Your task to perform on an android device: install app "Google Translate" Image 0: 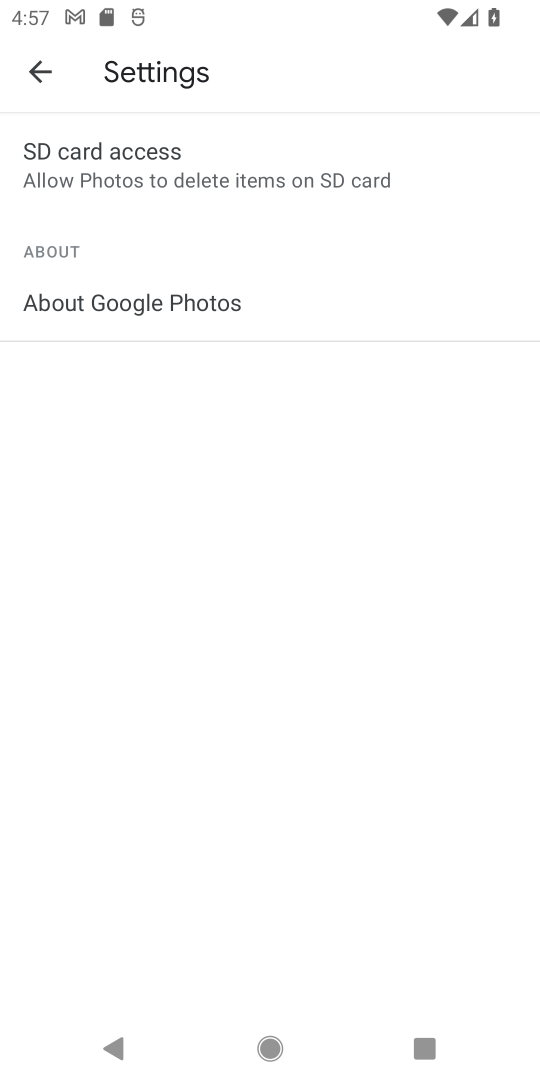
Step 0: click (23, 77)
Your task to perform on an android device: install app "Google Translate" Image 1: 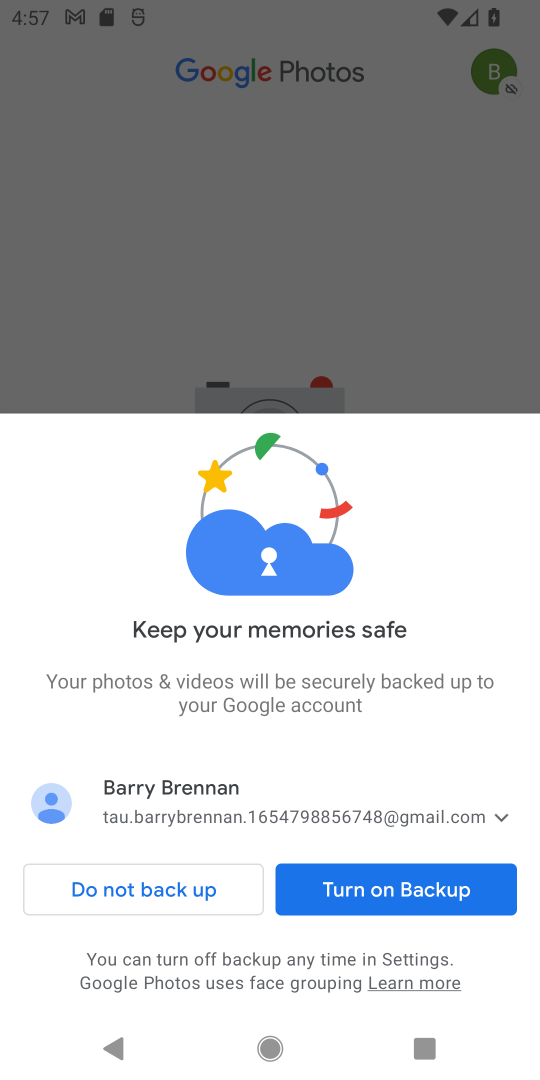
Step 1: click (432, 306)
Your task to perform on an android device: install app "Google Translate" Image 2: 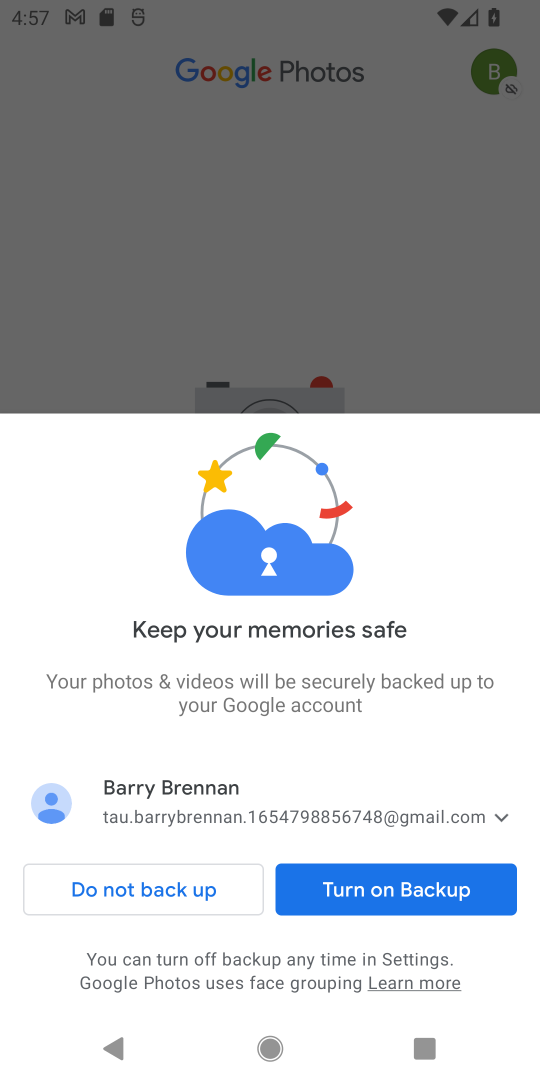
Step 2: click (448, 371)
Your task to perform on an android device: install app "Google Translate" Image 3: 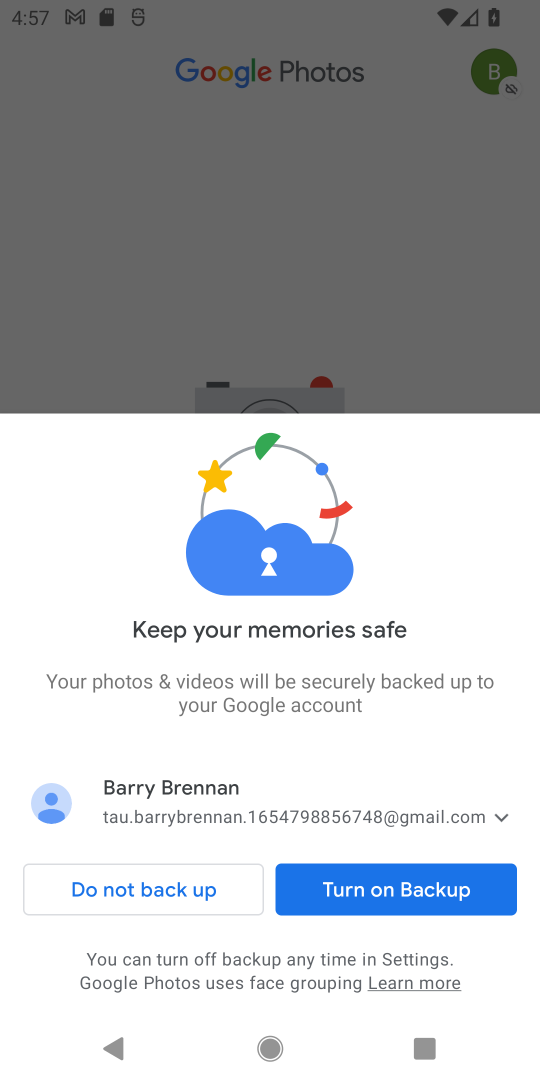
Step 3: click (271, 253)
Your task to perform on an android device: install app "Google Translate" Image 4: 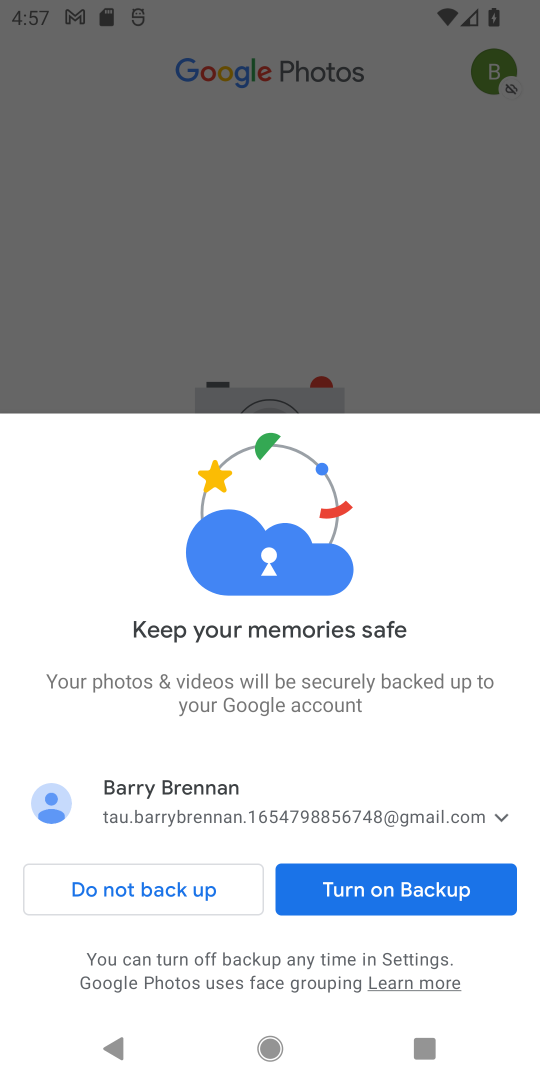
Step 4: click (271, 253)
Your task to perform on an android device: install app "Google Translate" Image 5: 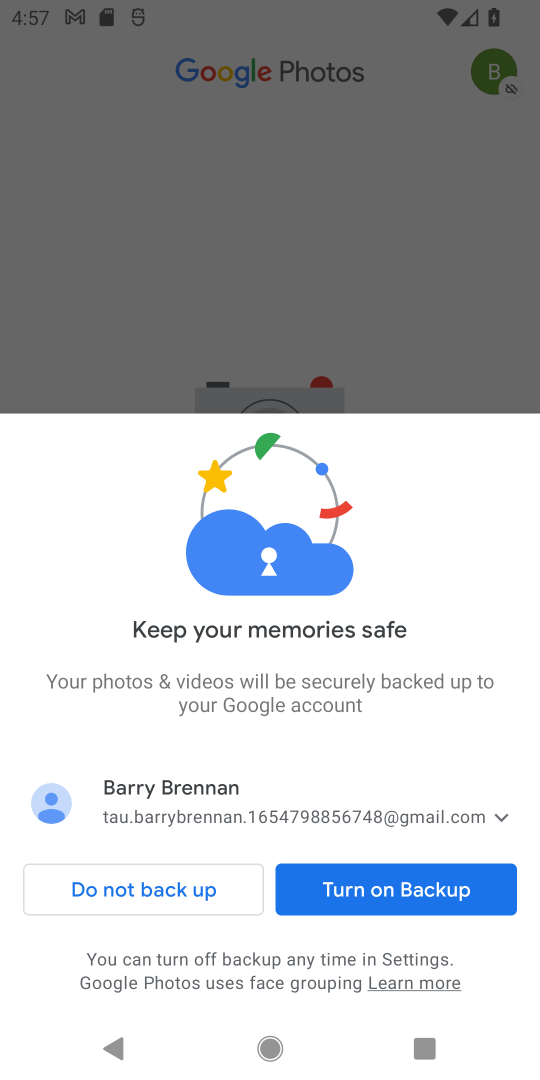
Step 5: click (255, 276)
Your task to perform on an android device: install app "Google Translate" Image 6: 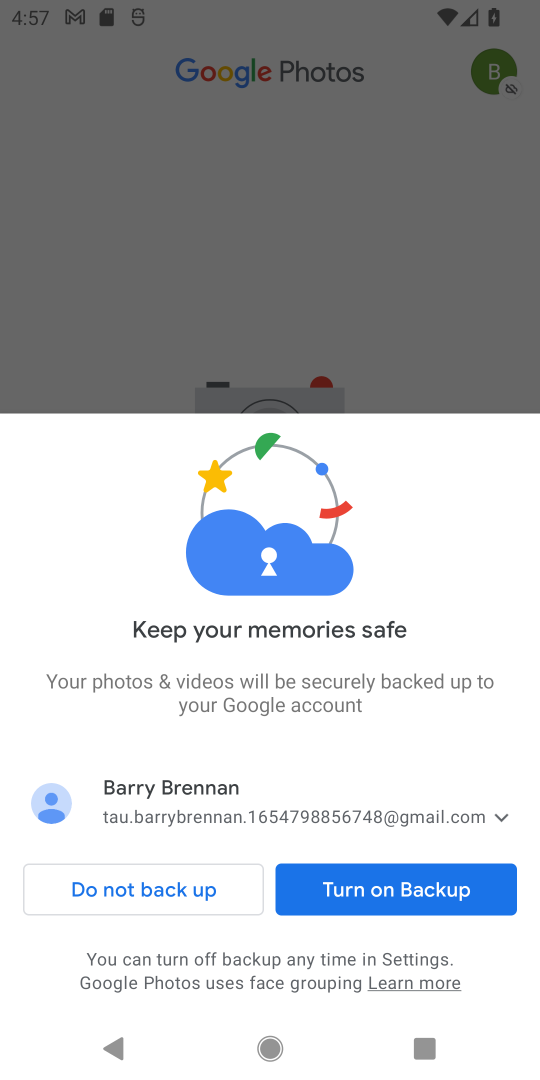
Step 6: click (332, 267)
Your task to perform on an android device: install app "Google Translate" Image 7: 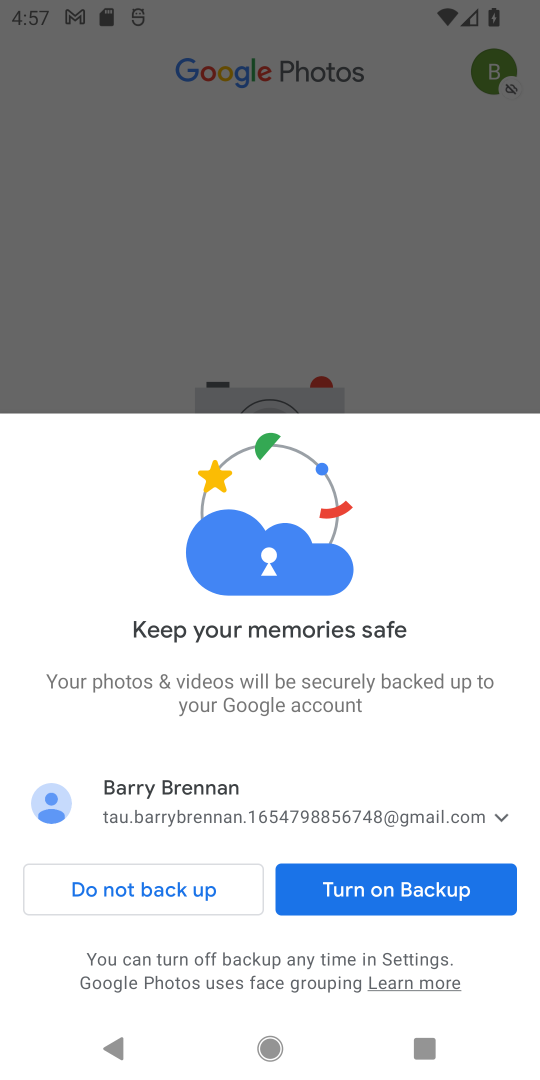
Step 7: click (332, 267)
Your task to perform on an android device: install app "Google Translate" Image 8: 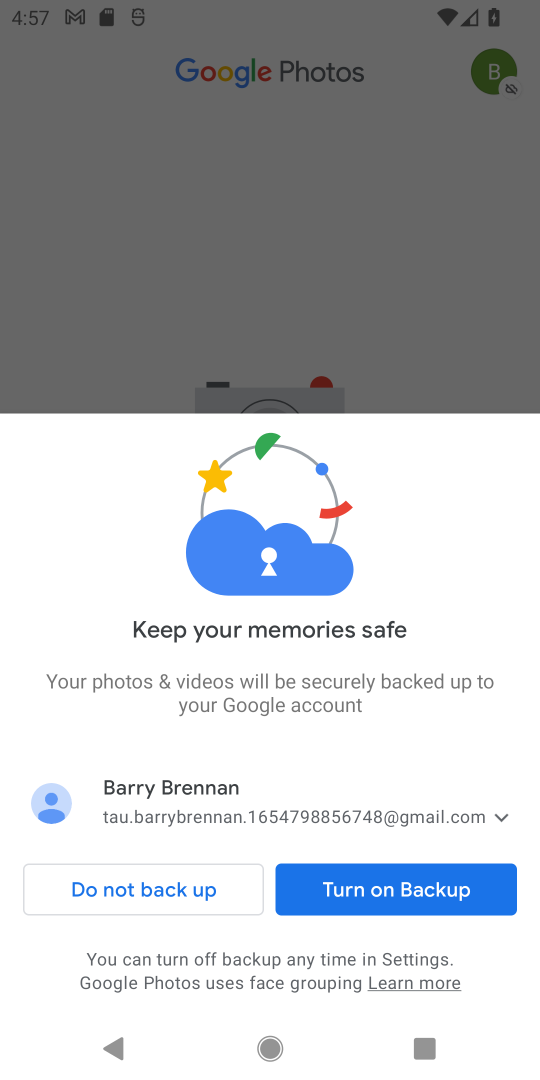
Step 8: click (356, 301)
Your task to perform on an android device: install app "Google Translate" Image 9: 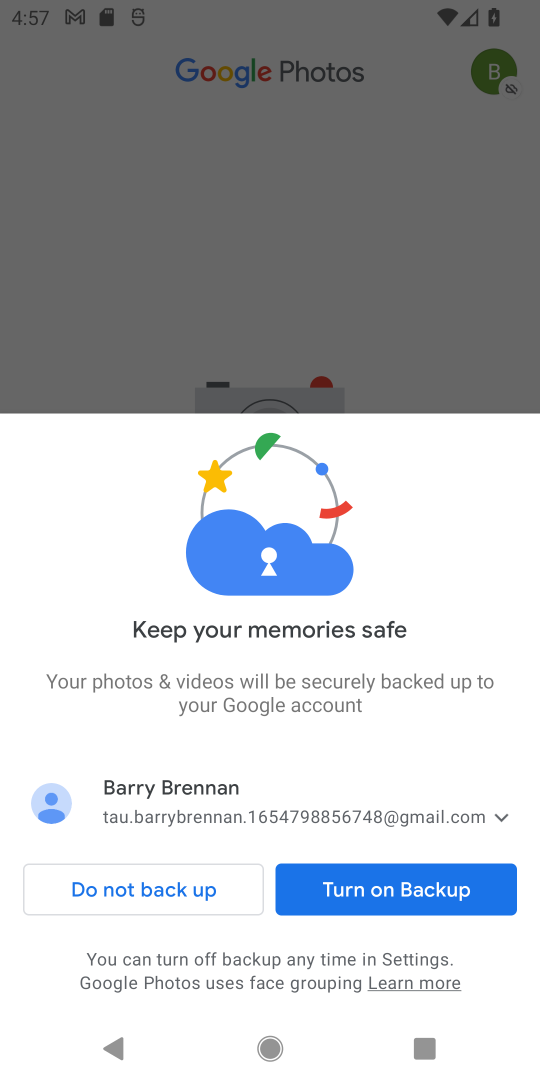
Step 9: press back button
Your task to perform on an android device: install app "Google Translate" Image 10: 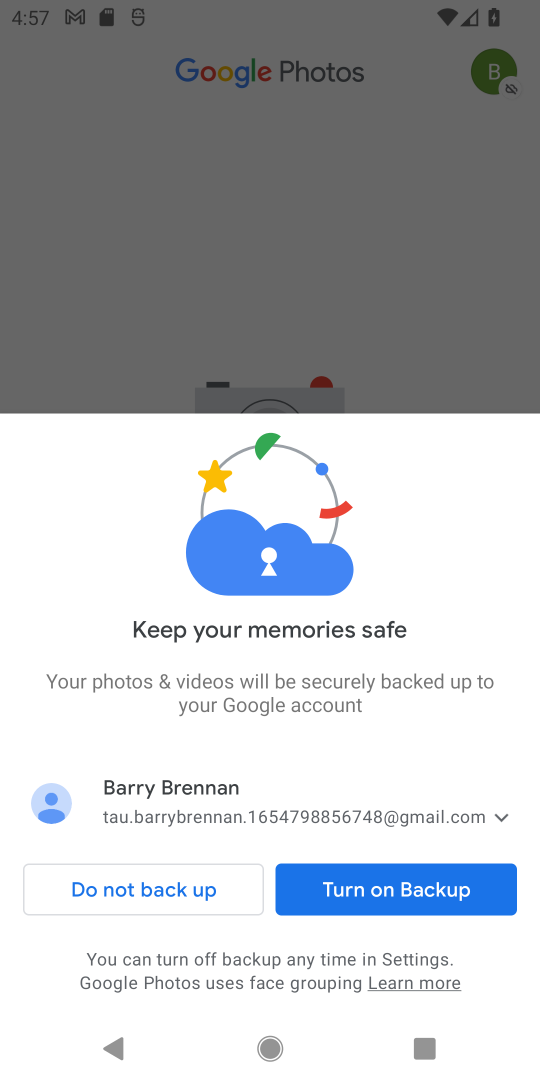
Step 10: press back button
Your task to perform on an android device: install app "Google Translate" Image 11: 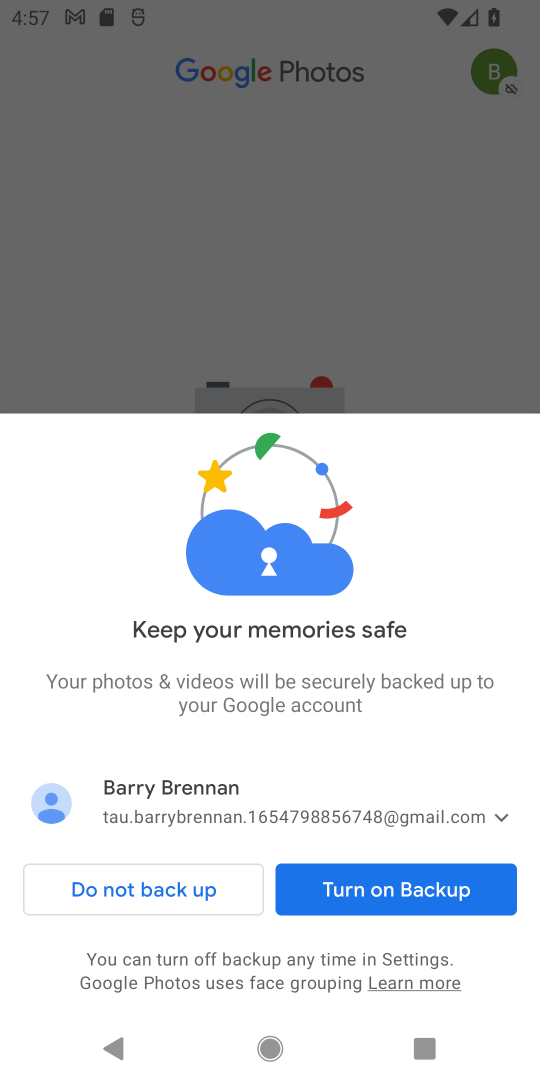
Step 11: click (323, 267)
Your task to perform on an android device: install app "Google Translate" Image 12: 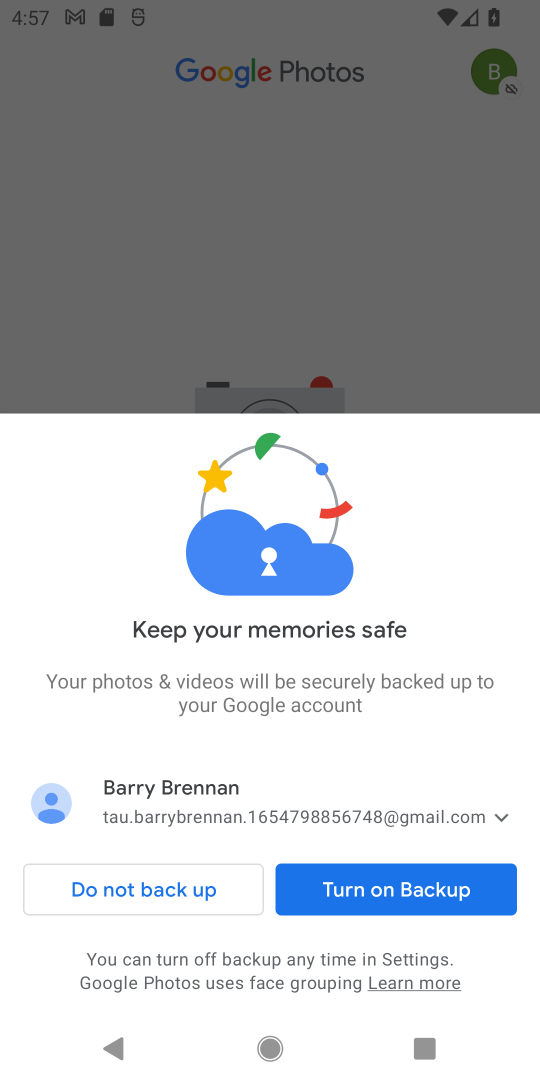
Step 12: click (327, 265)
Your task to perform on an android device: install app "Google Translate" Image 13: 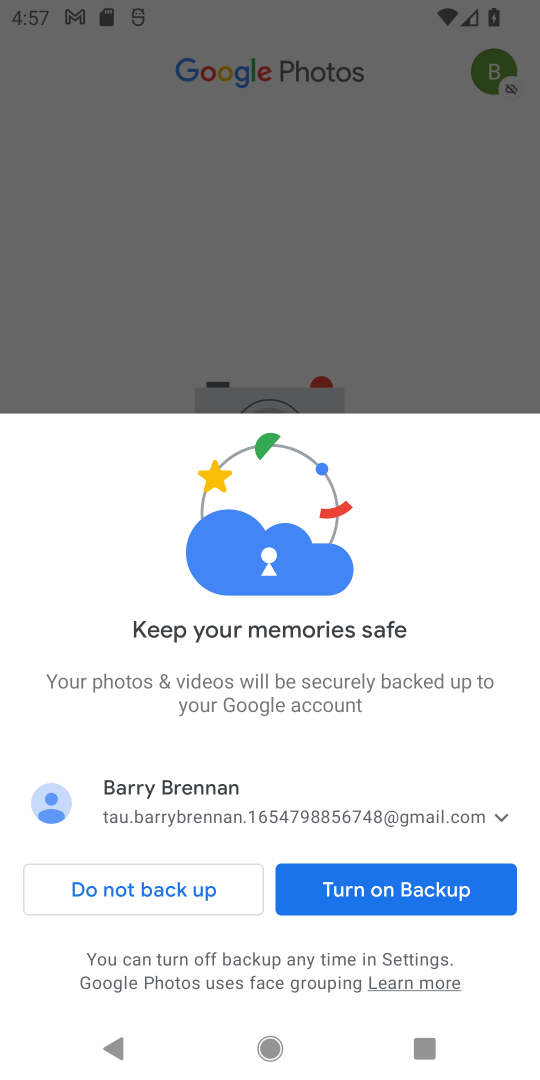
Step 13: click (345, 273)
Your task to perform on an android device: install app "Google Translate" Image 14: 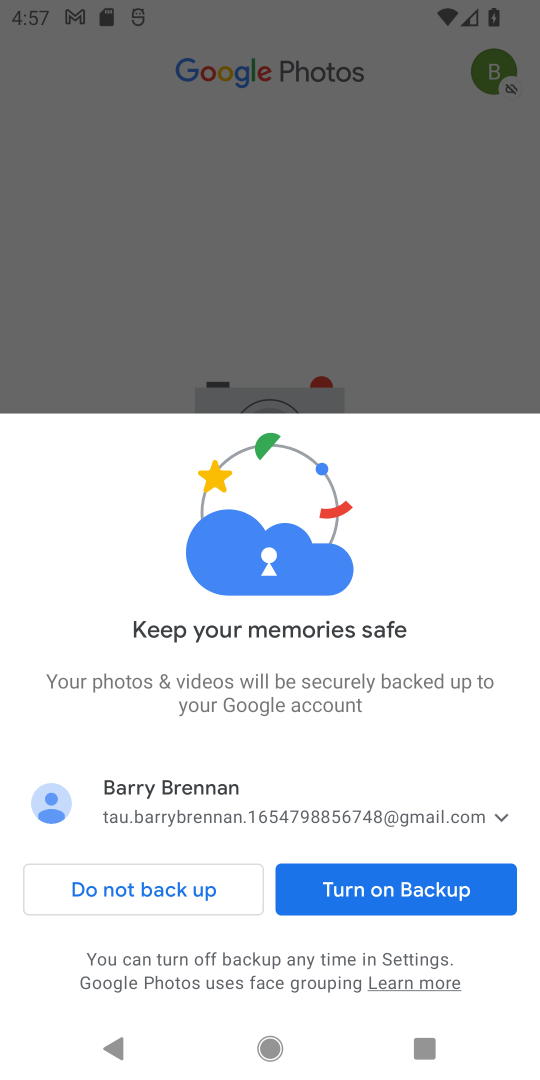
Step 14: click (244, 286)
Your task to perform on an android device: install app "Google Translate" Image 15: 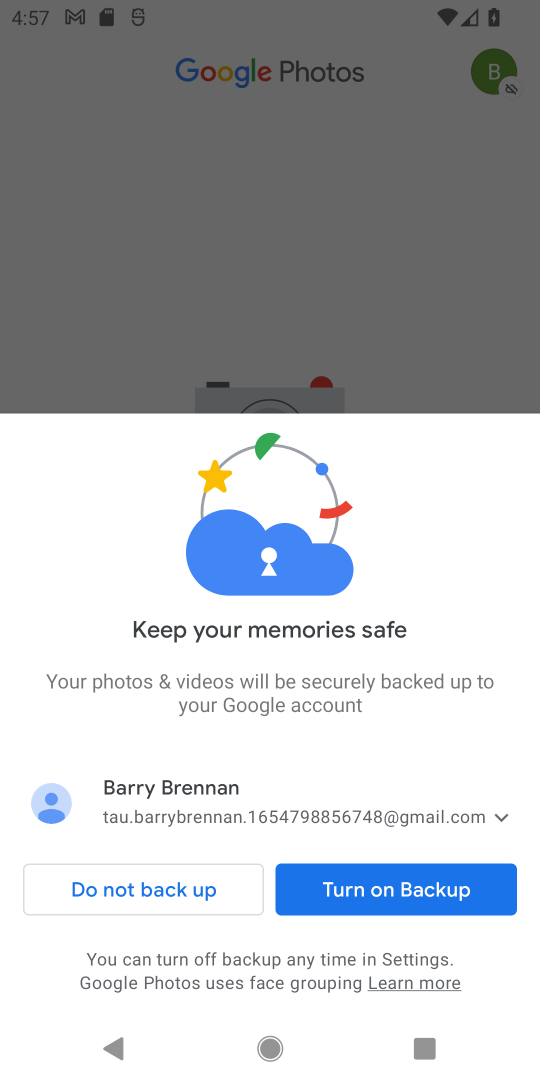
Step 15: click (253, 281)
Your task to perform on an android device: install app "Google Translate" Image 16: 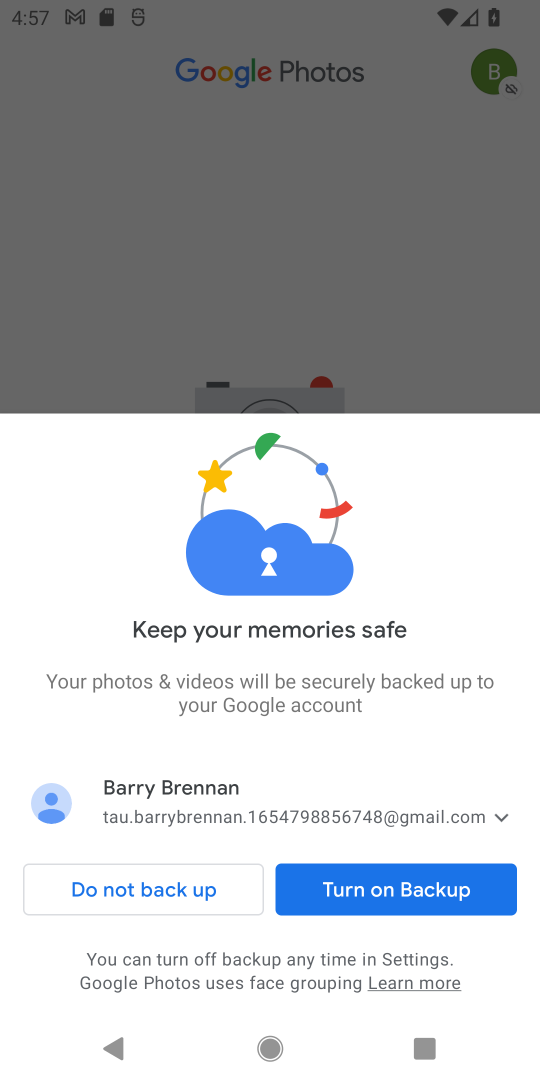
Step 16: click (257, 280)
Your task to perform on an android device: install app "Google Translate" Image 17: 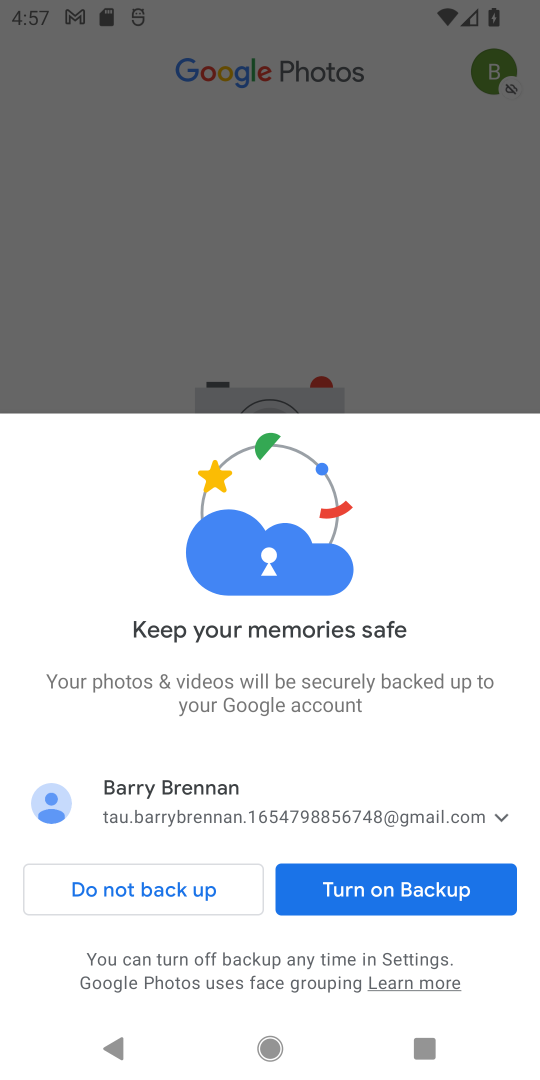
Step 17: press back button
Your task to perform on an android device: install app "Google Translate" Image 18: 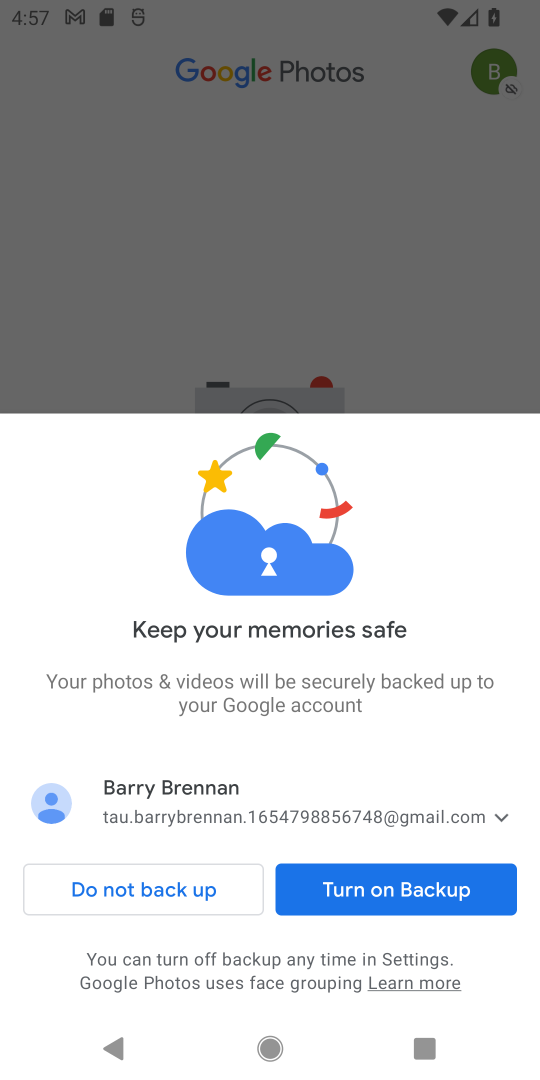
Step 18: press home button
Your task to perform on an android device: install app "Google Translate" Image 19: 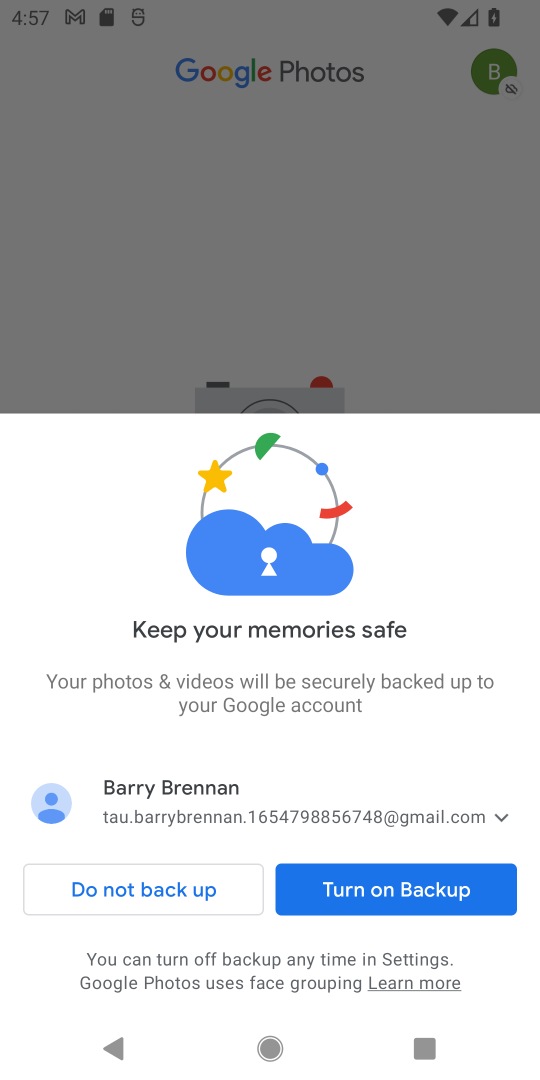
Step 19: press home button
Your task to perform on an android device: install app "Google Translate" Image 20: 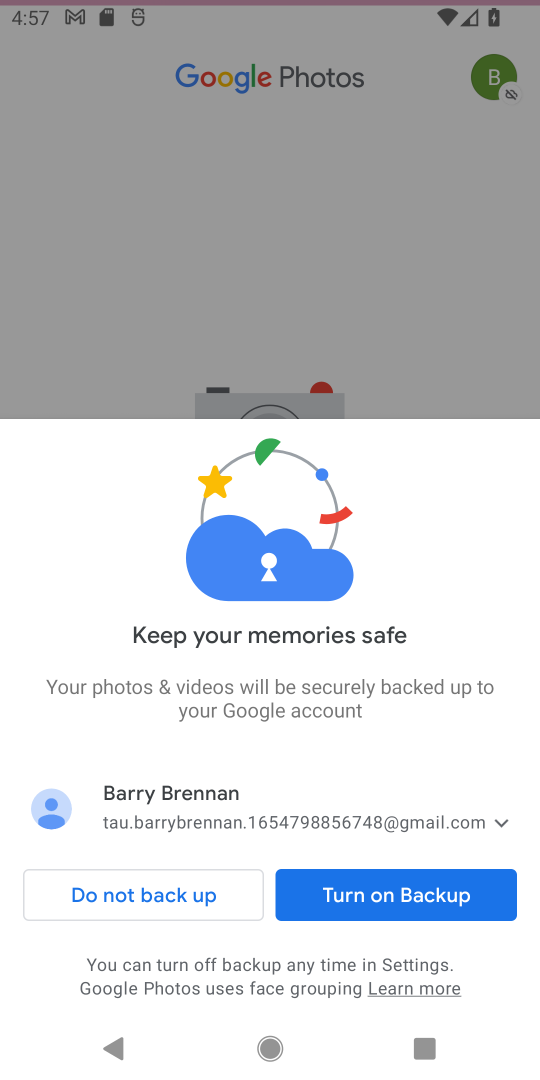
Step 20: press home button
Your task to perform on an android device: install app "Google Translate" Image 21: 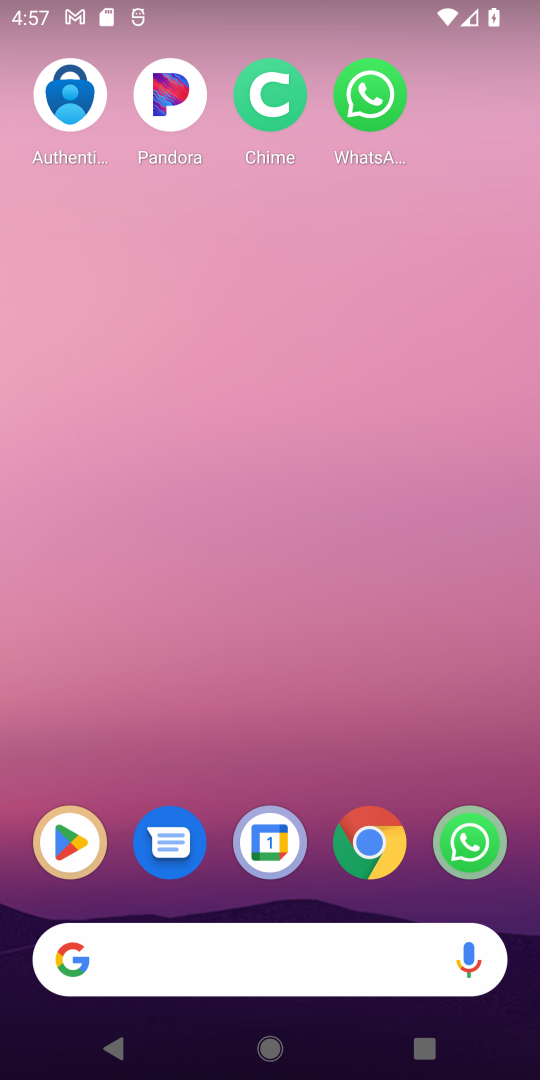
Step 21: press back button
Your task to perform on an android device: install app "Google Translate" Image 22: 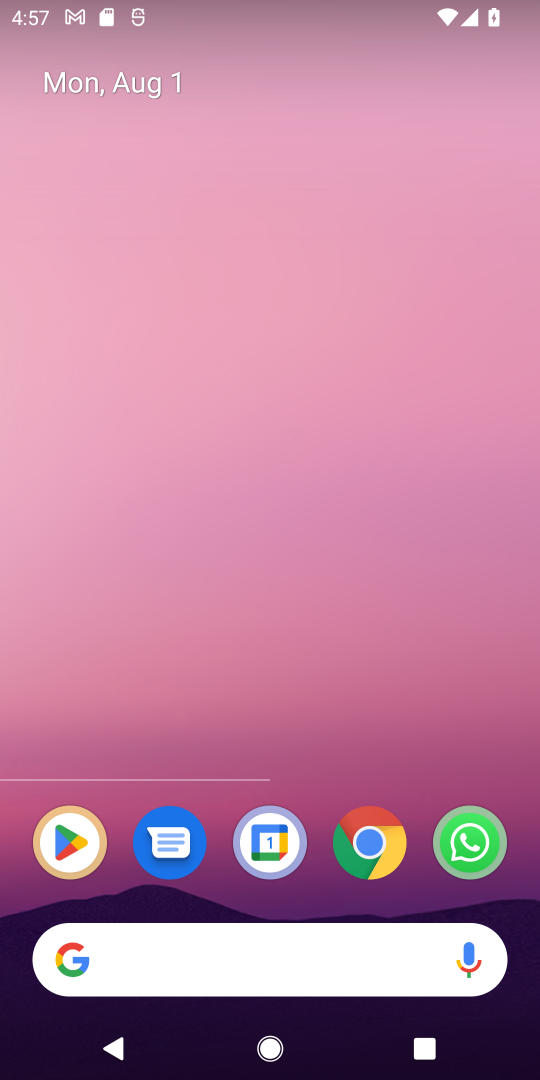
Step 22: press back button
Your task to perform on an android device: install app "Google Translate" Image 23: 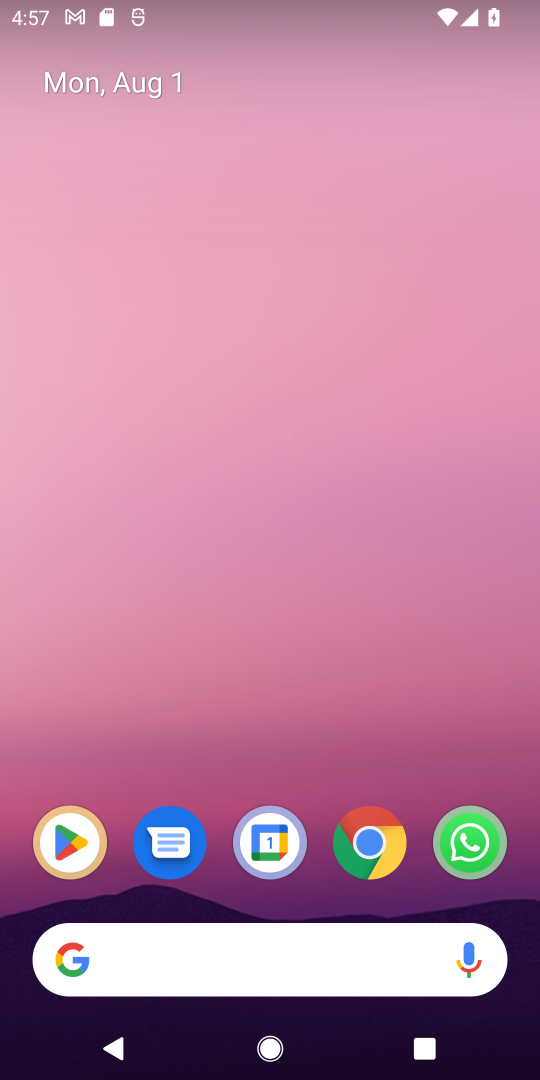
Step 23: drag from (185, 599) to (313, 367)
Your task to perform on an android device: install app "Google Translate" Image 24: 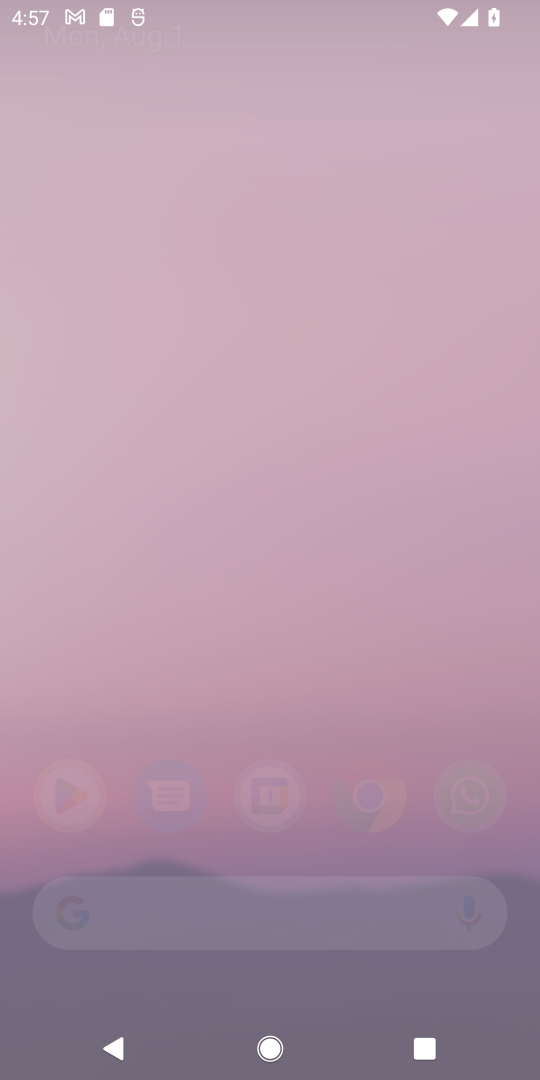
Step 24: drag from (398, 717) to (398, 156)
Your task to perform on an android device: install app "Google Translate" Image 25: 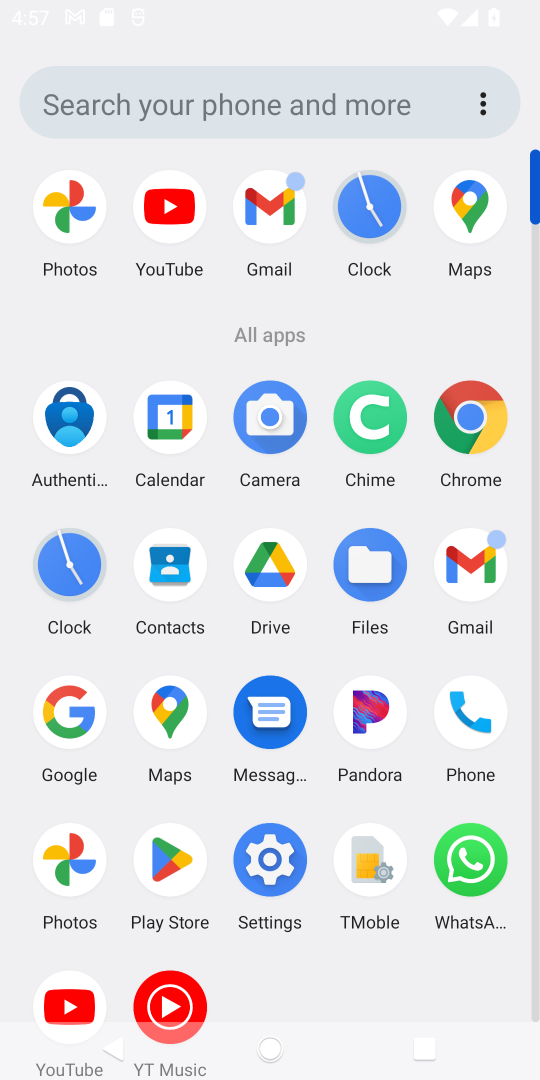
Step 25: drag from (241, 750) to (241, 205)
Your task to perform on an android device: install app "Google Translate" Image 26: 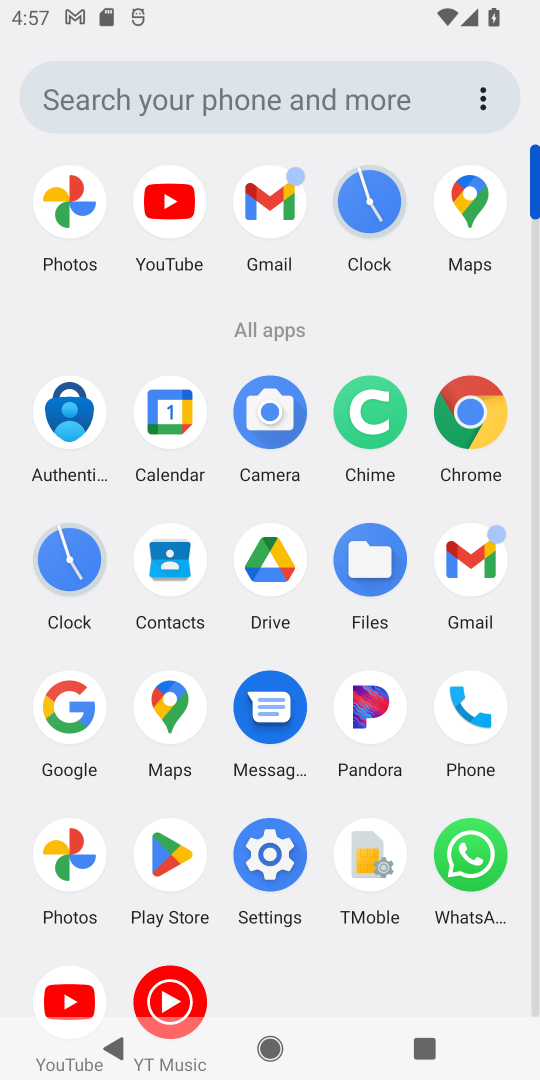
Step 26: click (162, 655)
Your task to perform on an android device: install app "Google Translate" Image 27: 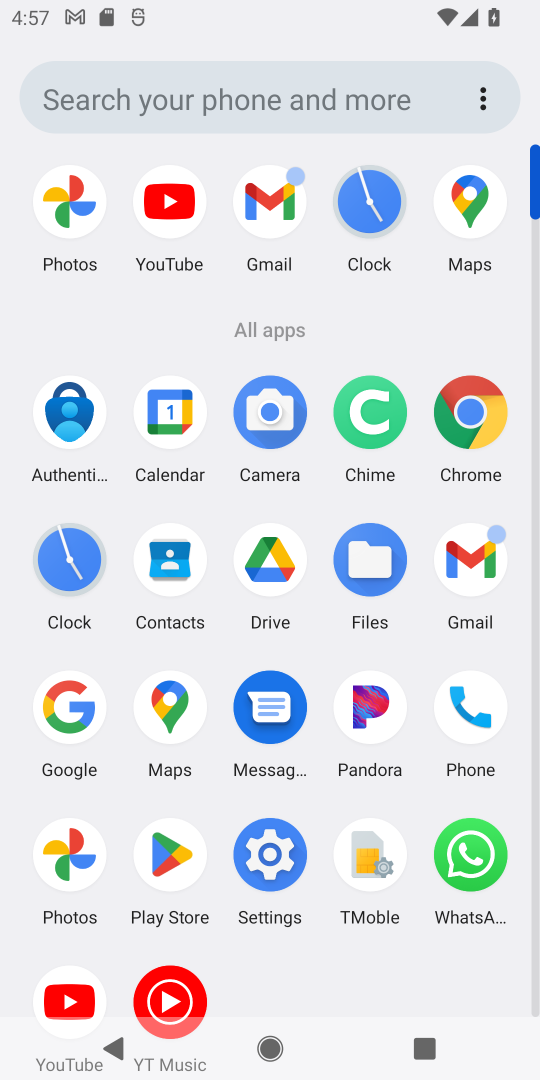
Step 27: click (179, 856)
Your task to perform on an android device: install app "Google Translate" Image 28: 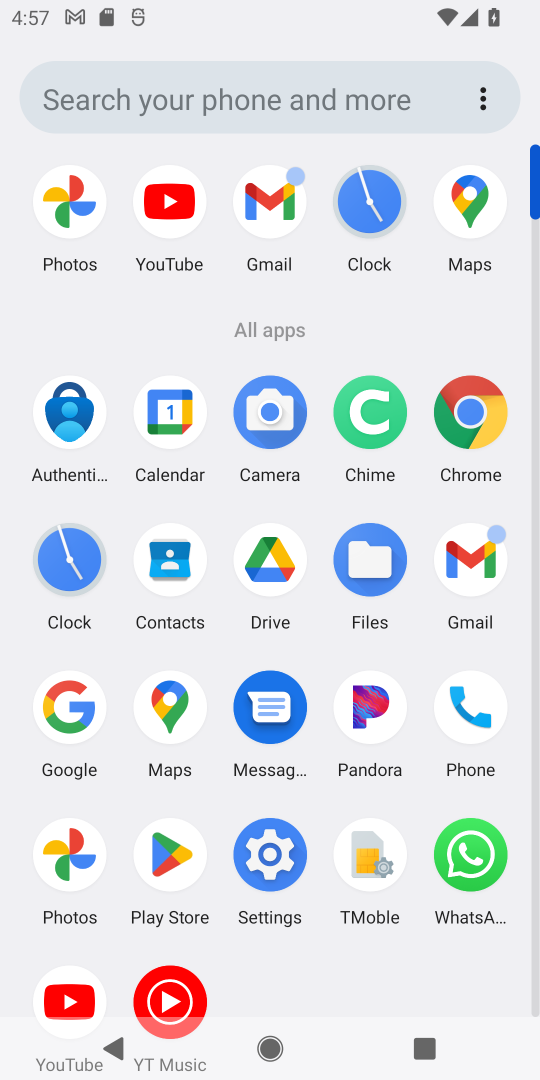
Step 28: click (179, 855)
Your task to perform on an android device: install app "Google Translate" Image 29: 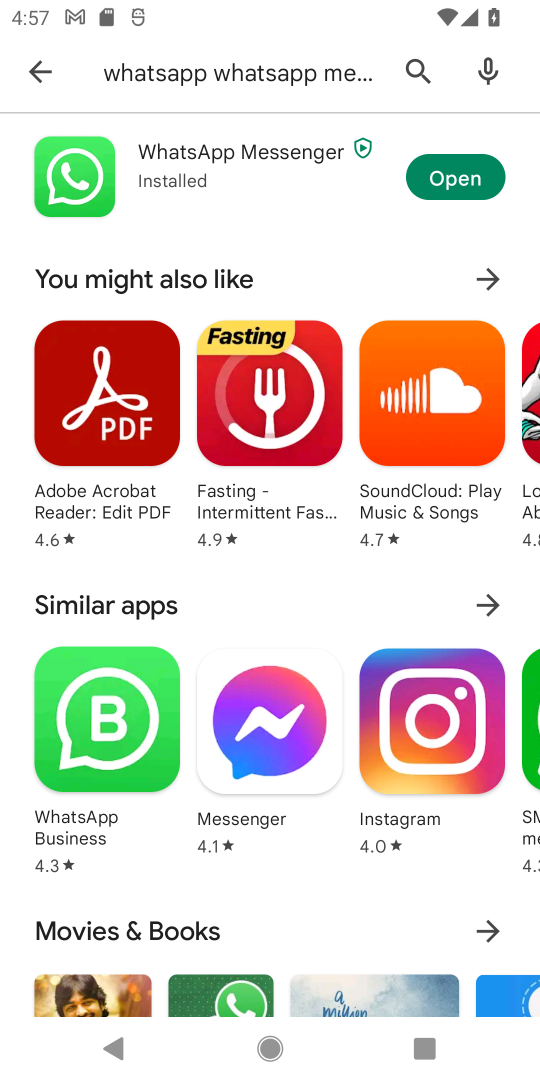
Step 29: click (45, 64)
Your task to perform on an android device: install app "Google Translate" Image 30: 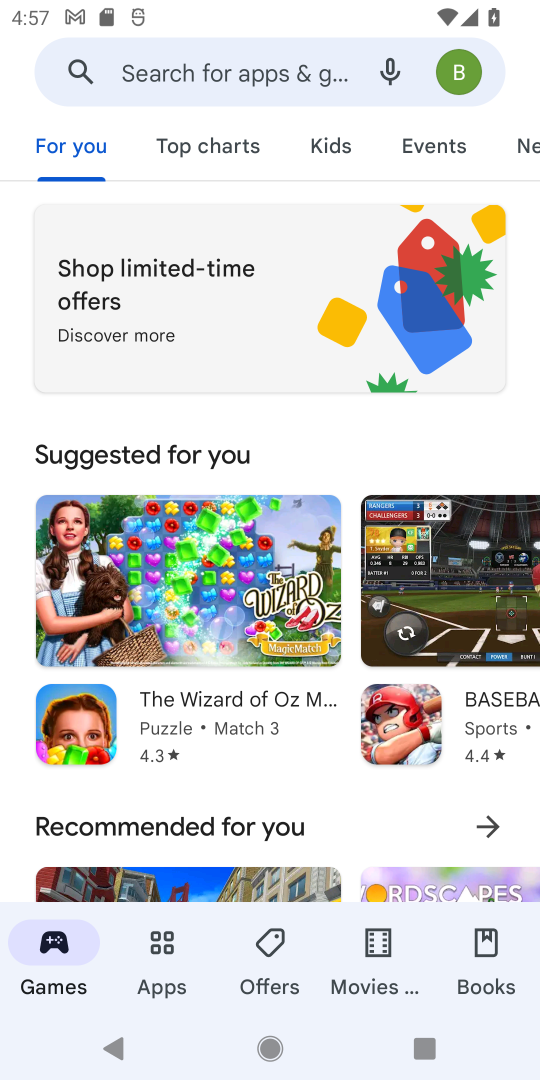
Step 30: click (146, 79)
Your task to perform on an android device: install app "Google Translate" Image 31: 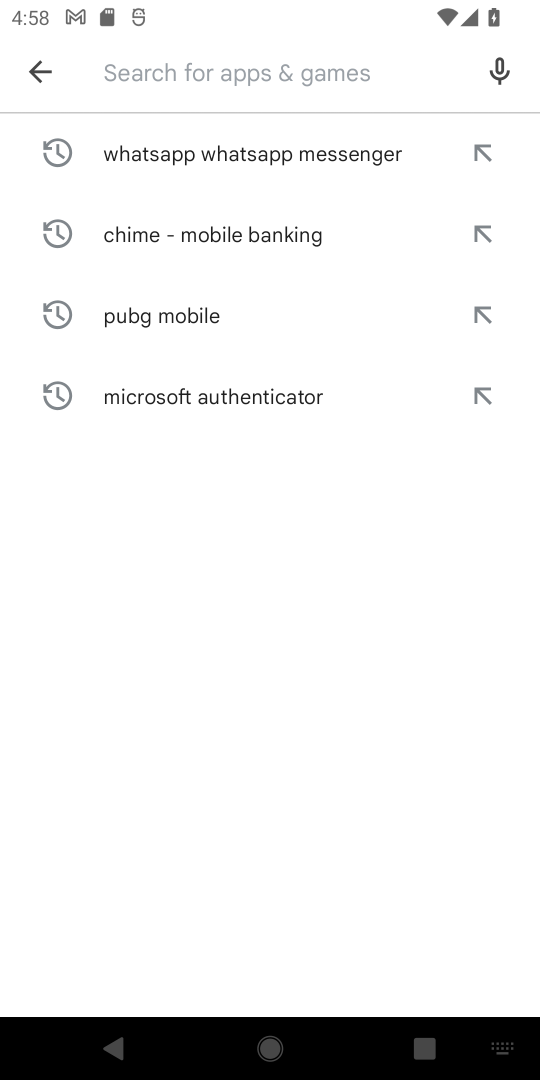
Step 31: type "google translate"
Your task to perform on an android device: install app "Google Translate" Image 32: 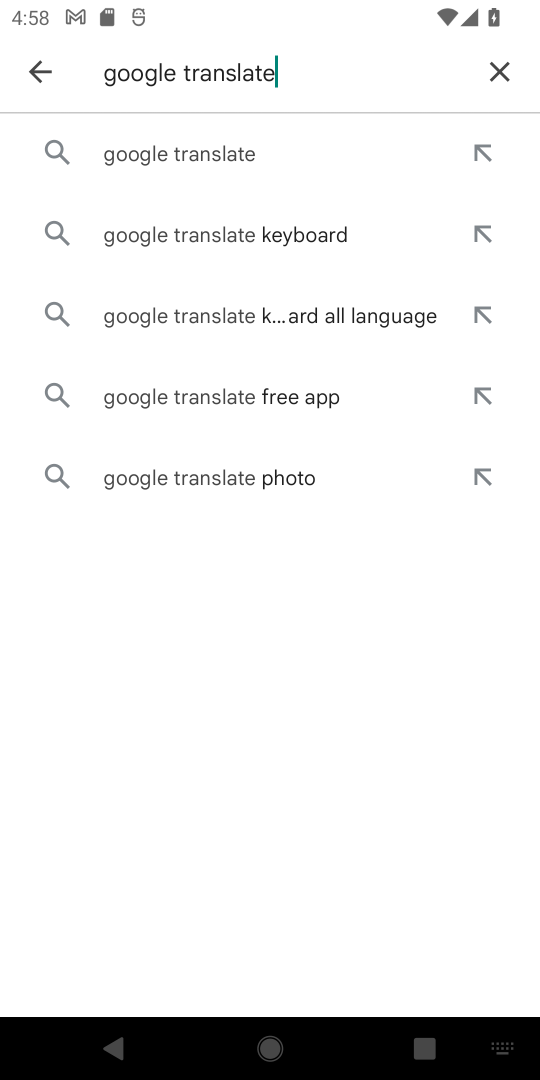
Step 32: click (249, 131)
Your task to perform on an android device: install app "Google Translate" Image 33: 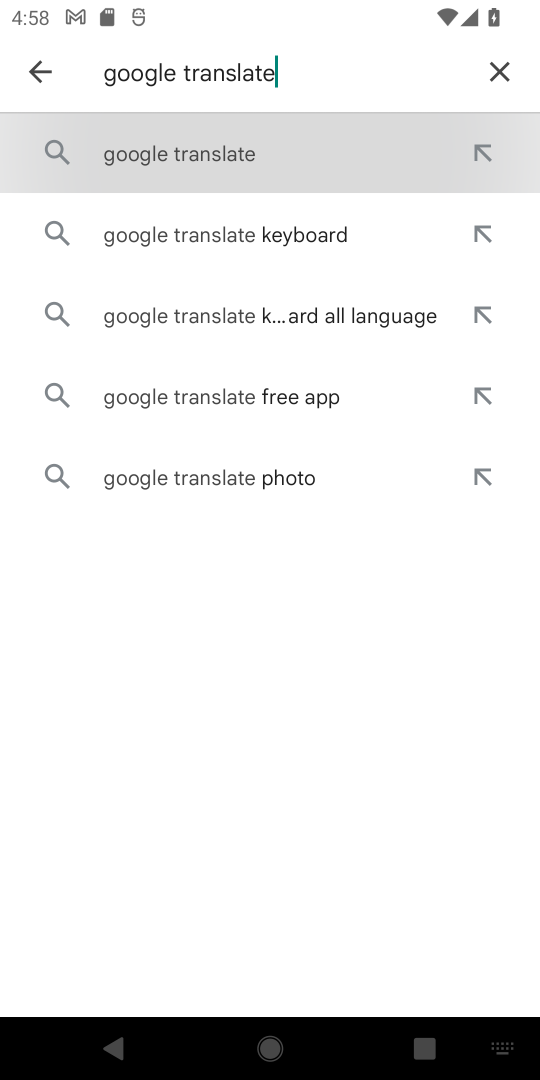
Step 33: click (242, 148)
Your task to perform on an android device: install app "Google Translate" Image 34: 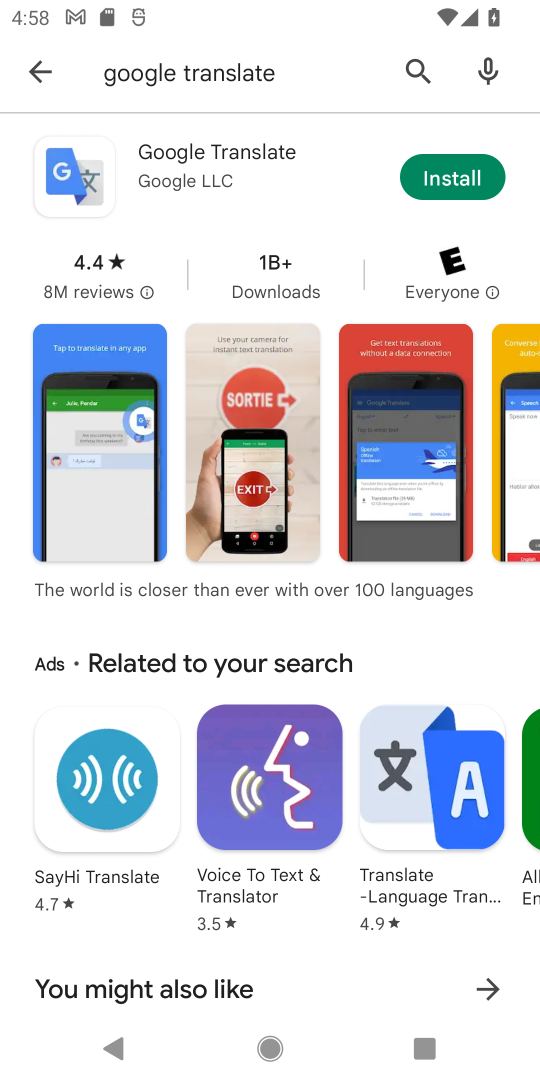
Step 34: click (473, 172)
Your task to perform on an android device: install app "Google Translate" Image 35: 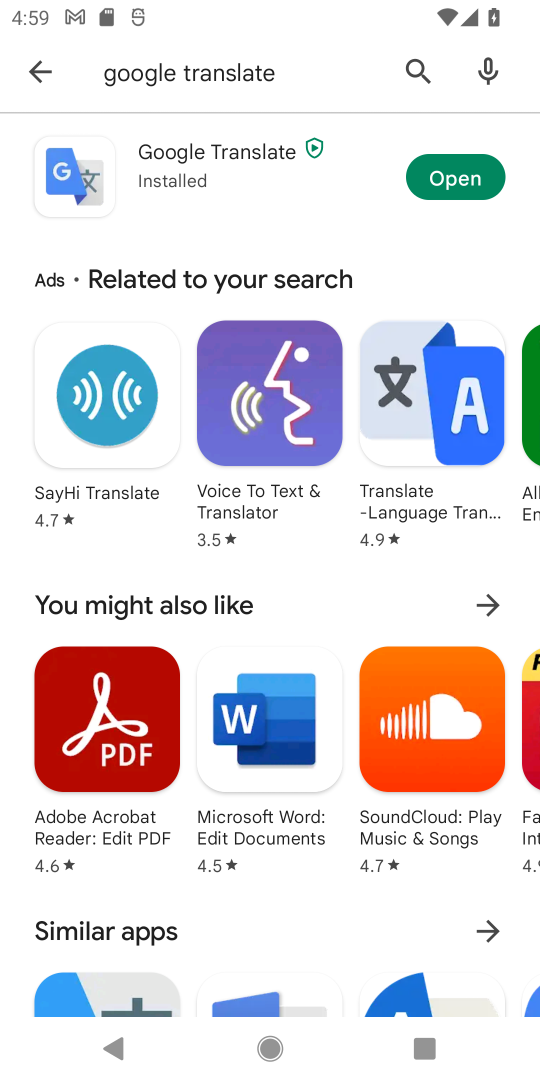
Step 35: click (463, 174)
Your task to perform on an android device: install app "Google Translate" Image 36: 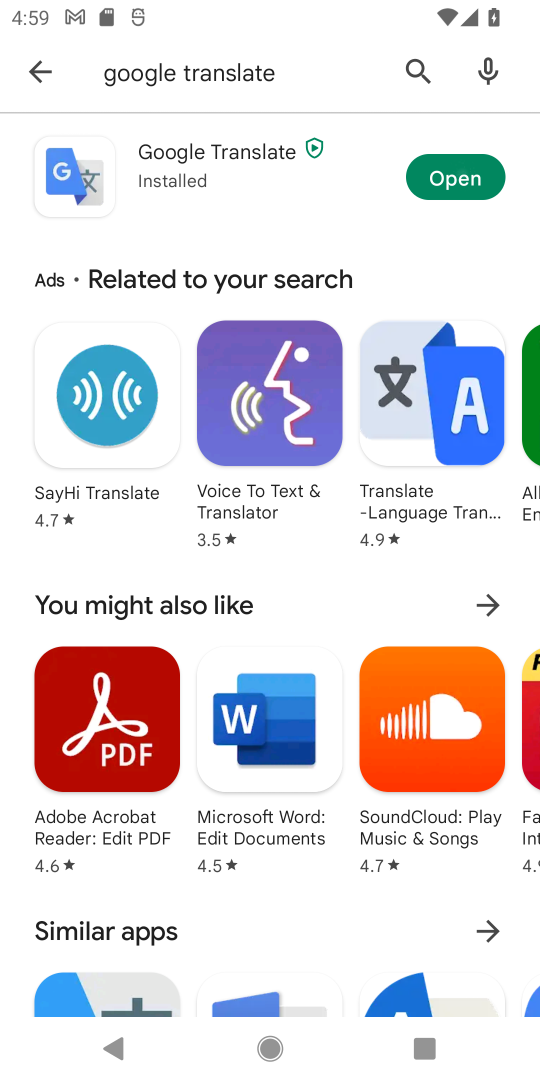
Step 36: click (474, 179)
Your task to perform on an android device: install app "Google Translate" Image 37: 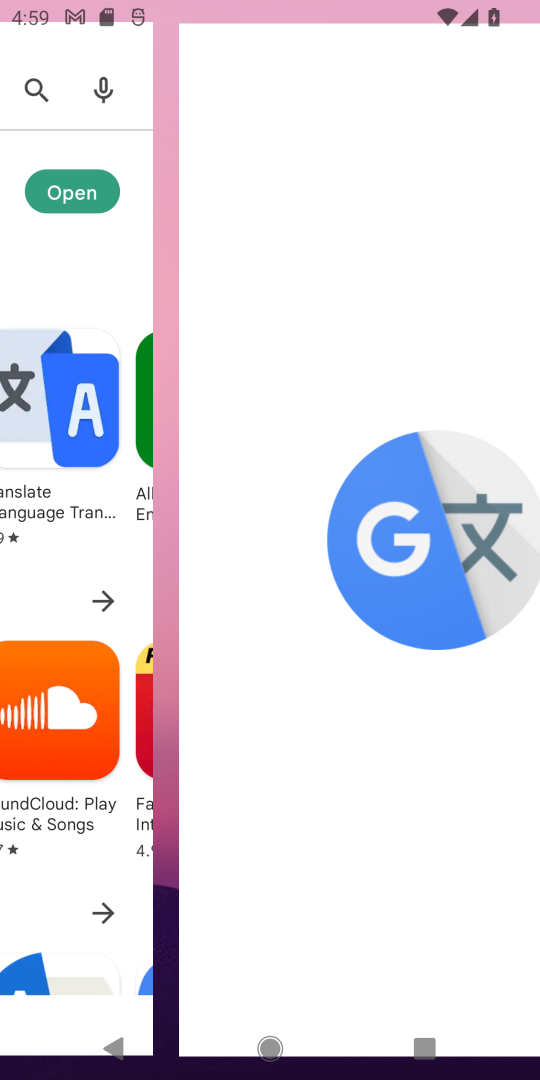
Step 37: click (474, 181)
Your task to perform on an android device: install app "Google Translate" Image 38: 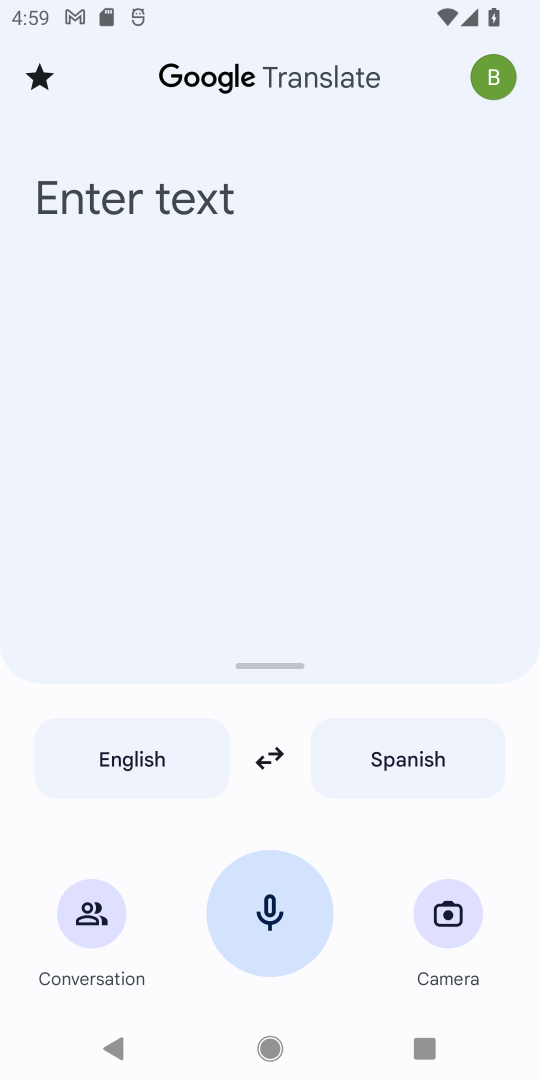
Step 38: task complete